Your task to perform on an android device: Open eBay Image 0: 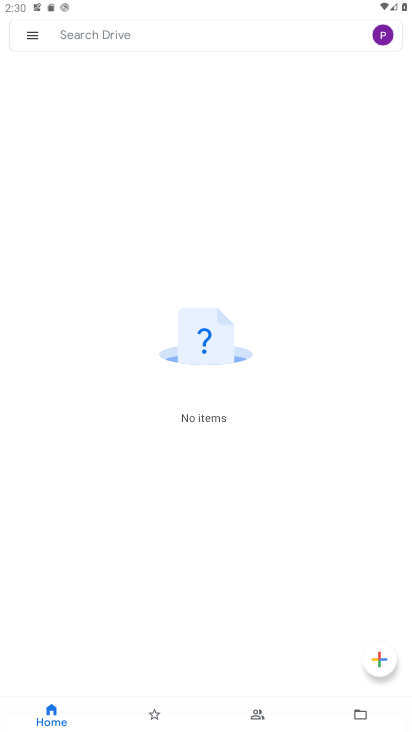
Step 0: press home button
Your task to perform on an android device: Open eBay Image 1: 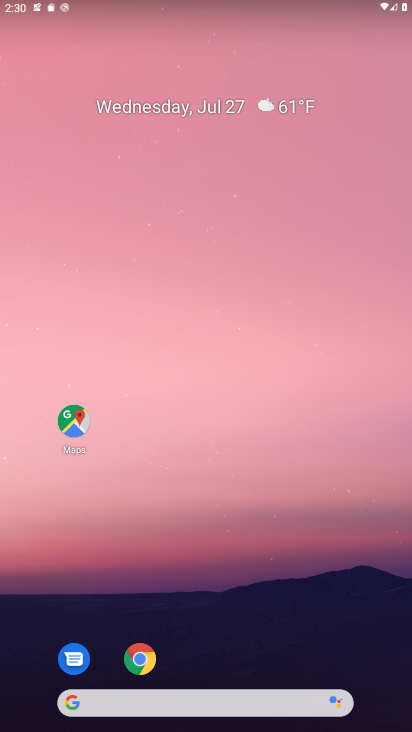
Step 1: click (149, 655)
Your task to perform on an android device: Open eBay Image 2: 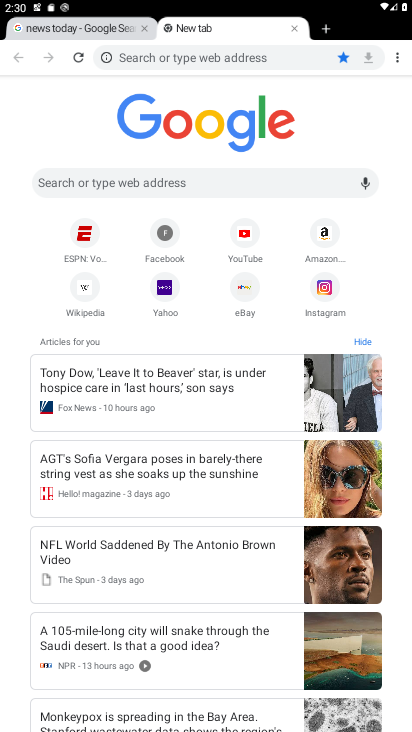
Step 2: click (158, 182)
Your task to perform on an android device: Open eBay Image 3: 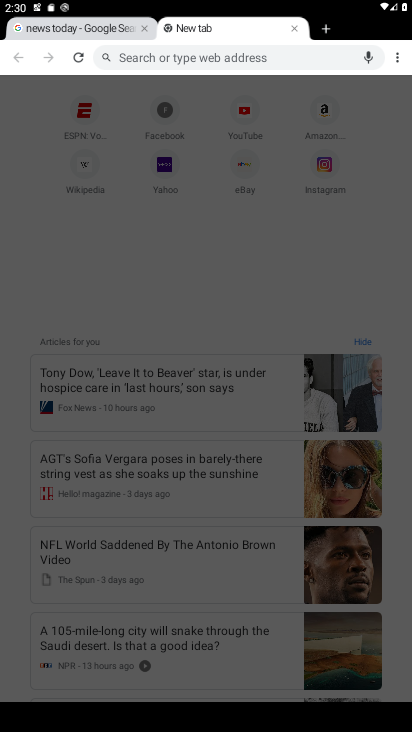
Step 3: type "ebay"
Your task to perform on an android device: Open eBay Image 4: 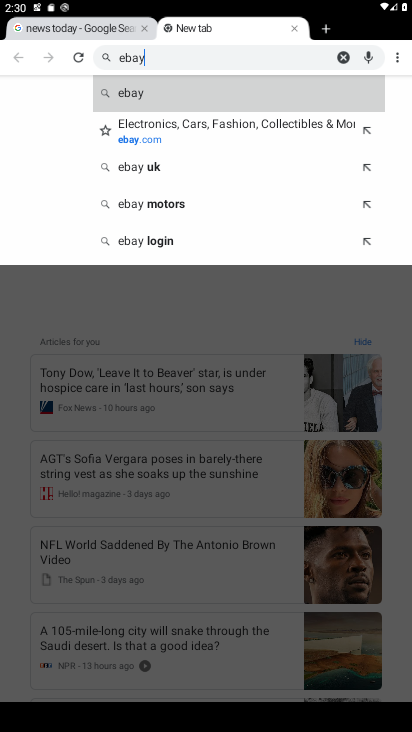
Step 4: click (194, 124)
Your task to perform on an android device: Open eBay Image 5: 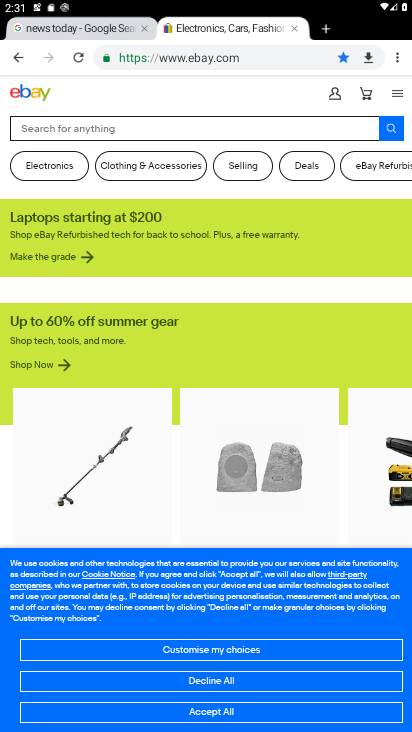
Step 5: task complete